Your task to perform on an android device: find snoozed emails in the gmail app Image 0: 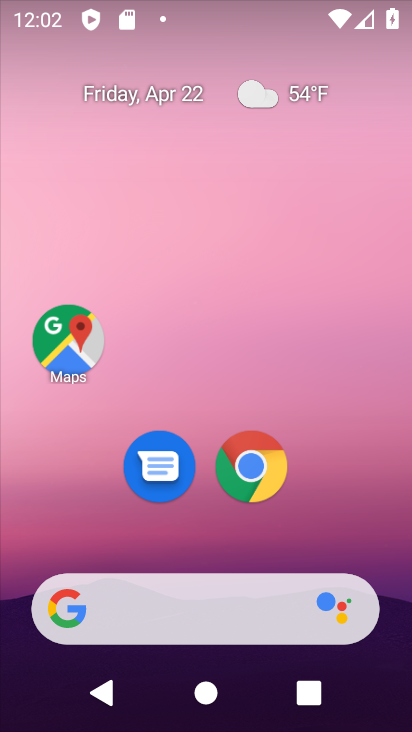
Step 0: drag from (328, 525) to (307, 46)
Your task to perform on an android device: find snoozed emails in the gmail app Image 1: 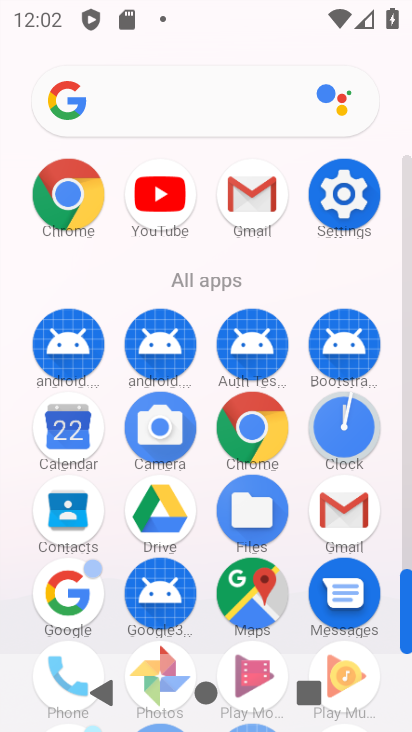
Step 1: click (265, 196)
Your task to perform on an android device: find snoozed emails in the gmail app Image 2: 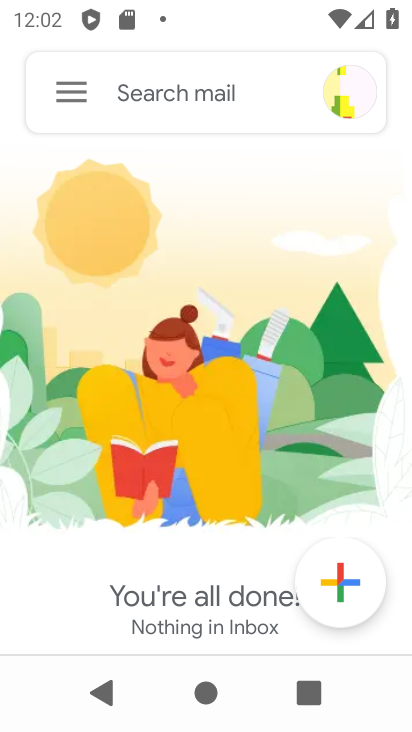
Step 2: click (71, 92)
Your task to perform on an android device: find snoozed emails in the gmail app Image 3: 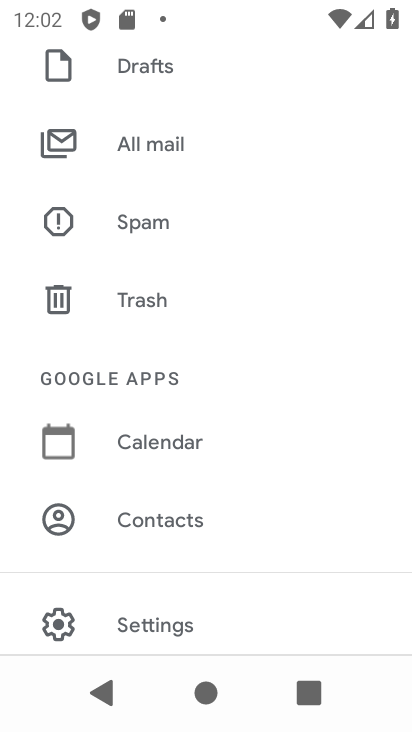
Step 3: drag from (261, 163) to (212, 644)
Your task to perform on an android device: find snoozed emails in the gmail app Image 4: 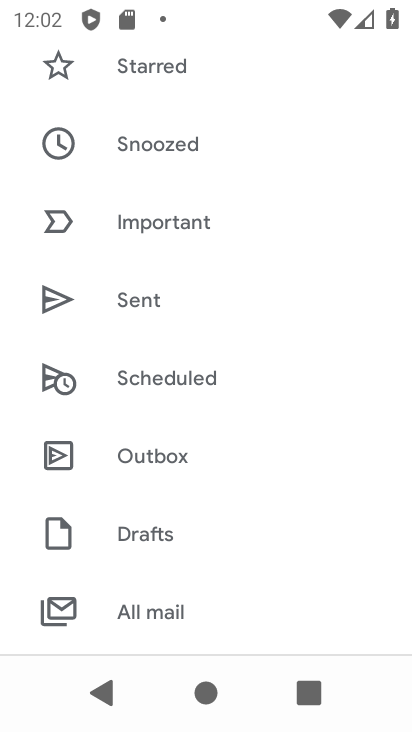
Step 4: click (178, 145)
Your task to perform on an android device: find snoozed emails in the gmail app Image 5: 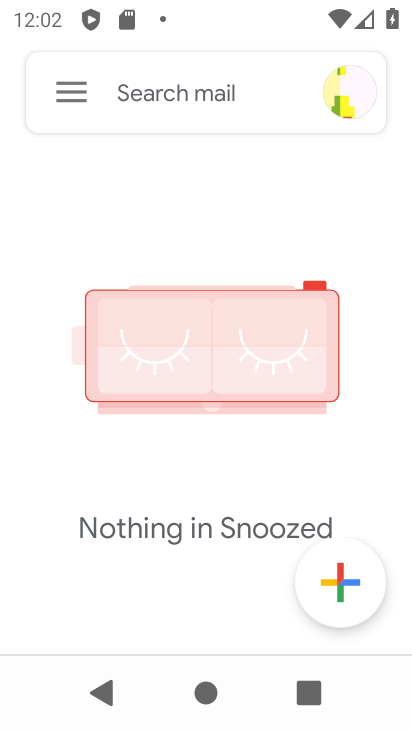
Step 5: drag from (137, 509) to (170, 352)
Your task to perform on an android device: find snoozed emails in the gmail app Image 6: 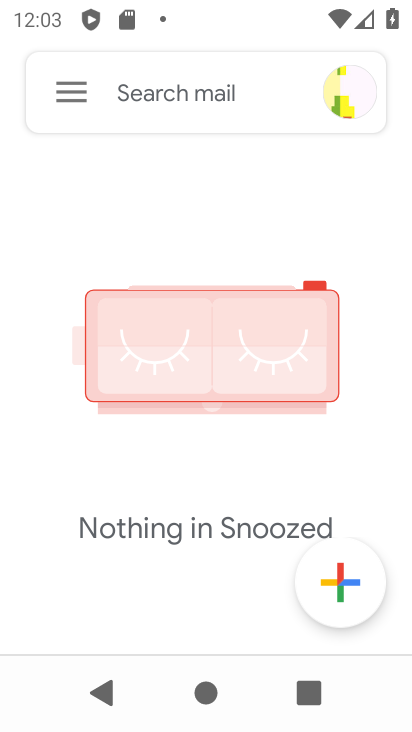
Step 6: drag from (152, 482) to (152, 207)
Your task to perform on an android device: find snoozed emails in the gmail app Image 7: 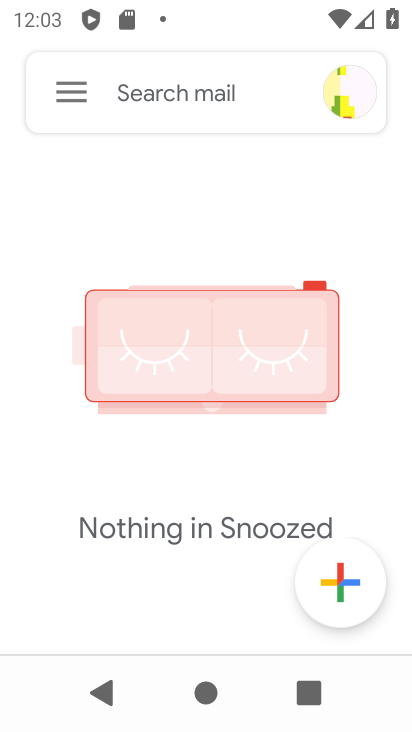
Step 7: click (78, 89)
Your task to perform on an android device: find snoozed emails in the gmail app Image 8: 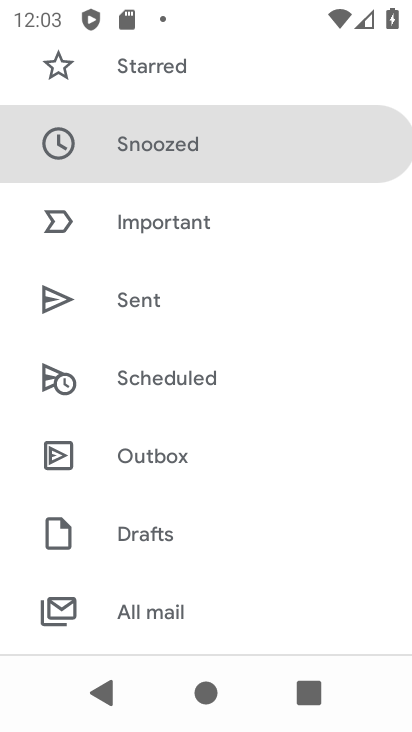
Step 8: click (174, 148)
Your task to perform on an android device: find snoozed emails in the gmail app Image 9: 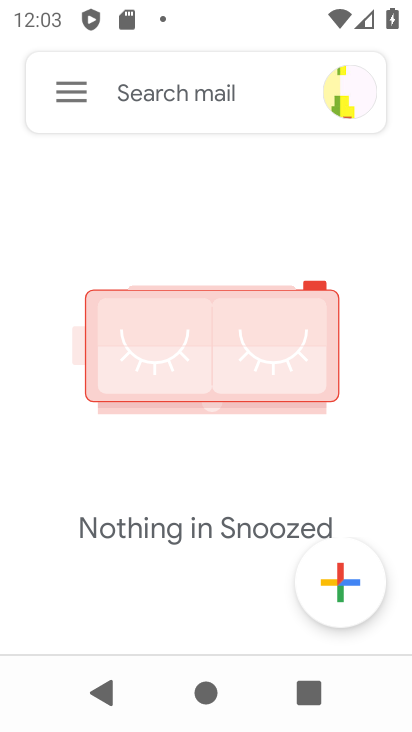
Step 9: click (69, 97)
Your task to perform on an android device: find snoozed emails in the gmail app Image 10: 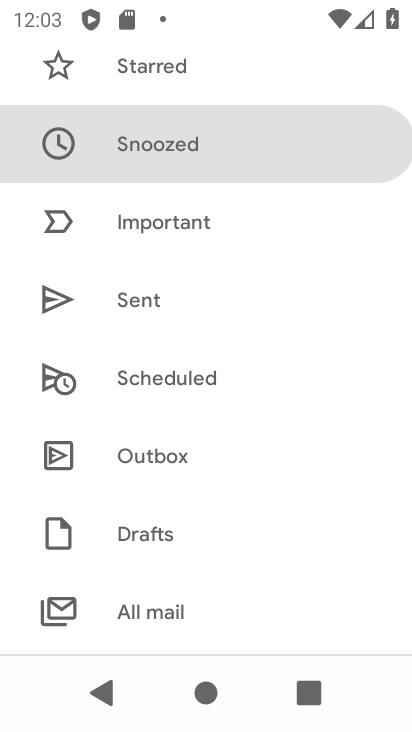
Step 10: click (177, 153)
Your task to perform on an android device: find snoozed emails in the gmail app Image 11: 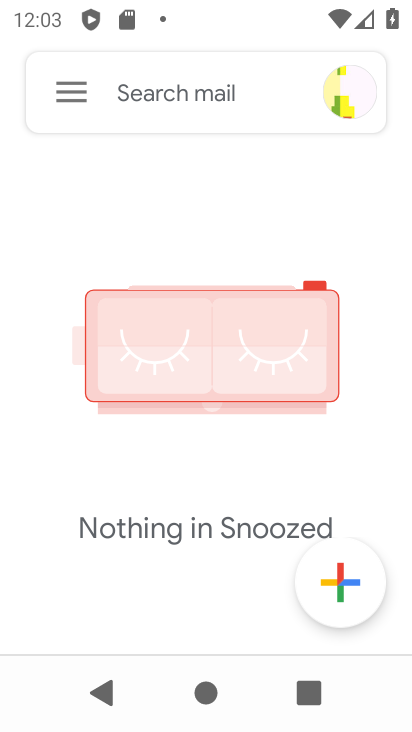
Step 11: task complete